Your task to perform on an android device: open wifi settings Image 0: 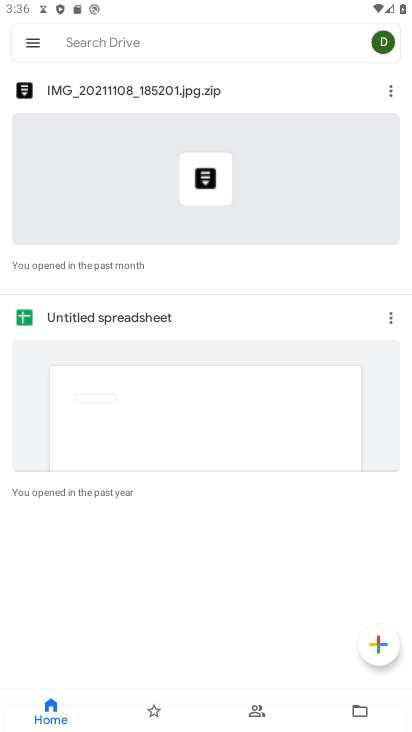
Step 0: press home button
Your task to perform on an android device: open wifi settings Image 1: 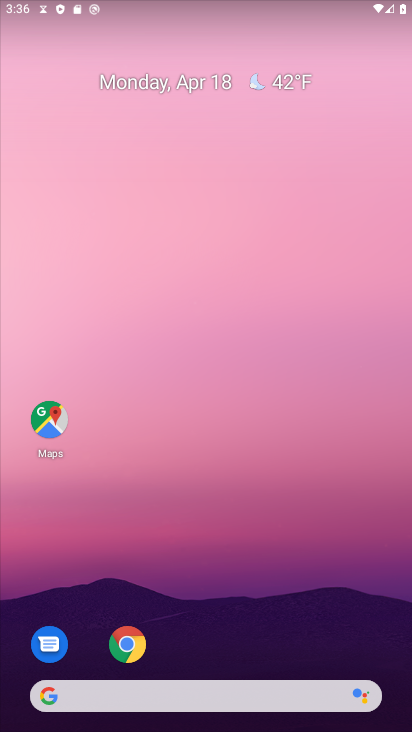
Step 1: drag from (230, 516) to (252, 123)
Your task to perform on an android device: open wifi settings Image 2: 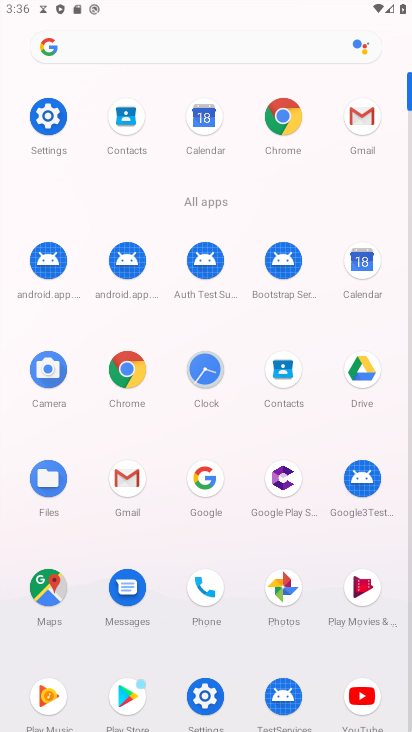
Step 2: click (53, 115)
Your task to perform on an android device: open wifi settings Image 3: 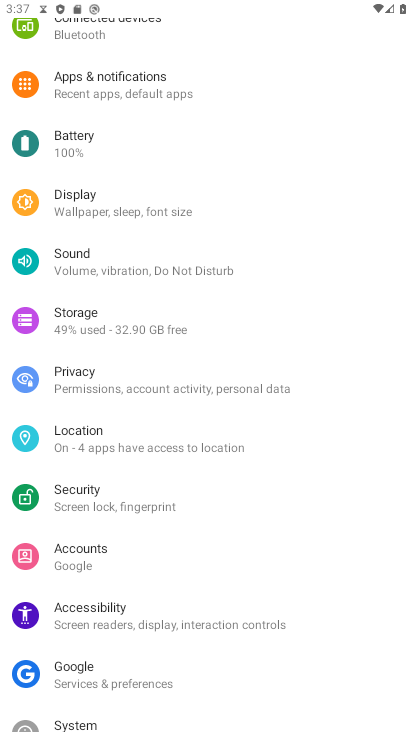
Step 3: drag from (257, 136) to (261, 559)
Your task to perform on an android device: open wifi settings Image 4: 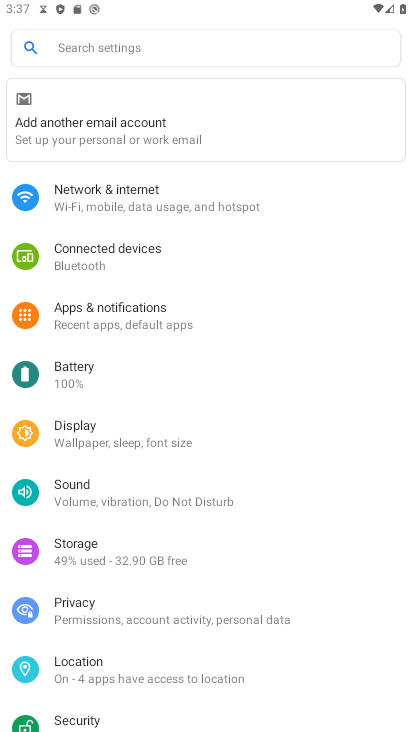
Step 4: click (132, 203)
Your task to perform on an android device: open wifi settings Image 5: 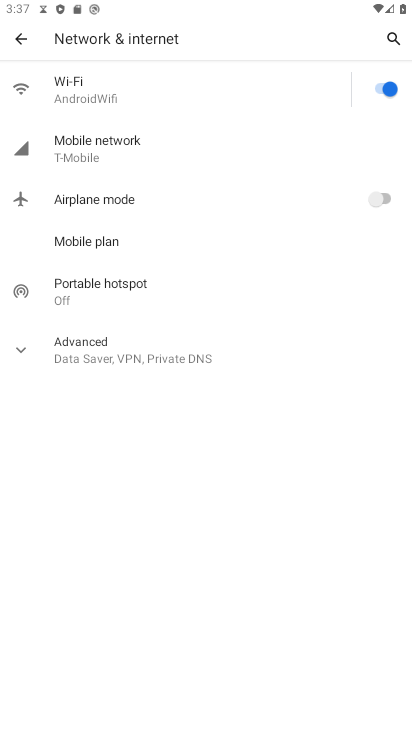
Step 5: click (74, 93)
Your task to perform on an android device: open wifi settings Image 6: 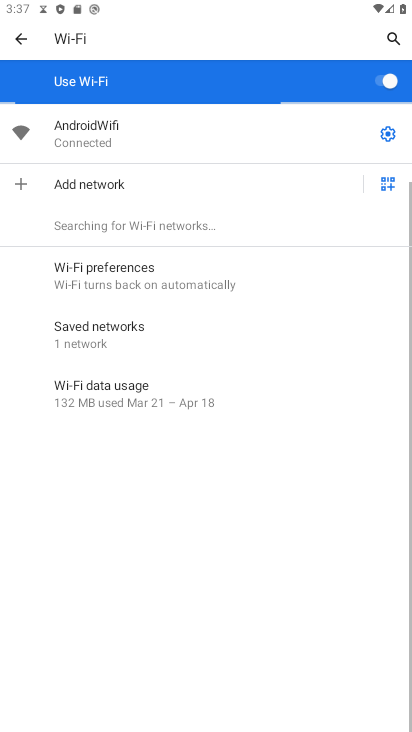
Step 6: task complete